Your task to perform on an android device: Add alienware area 51 to the cart on walmart.com Image 0: 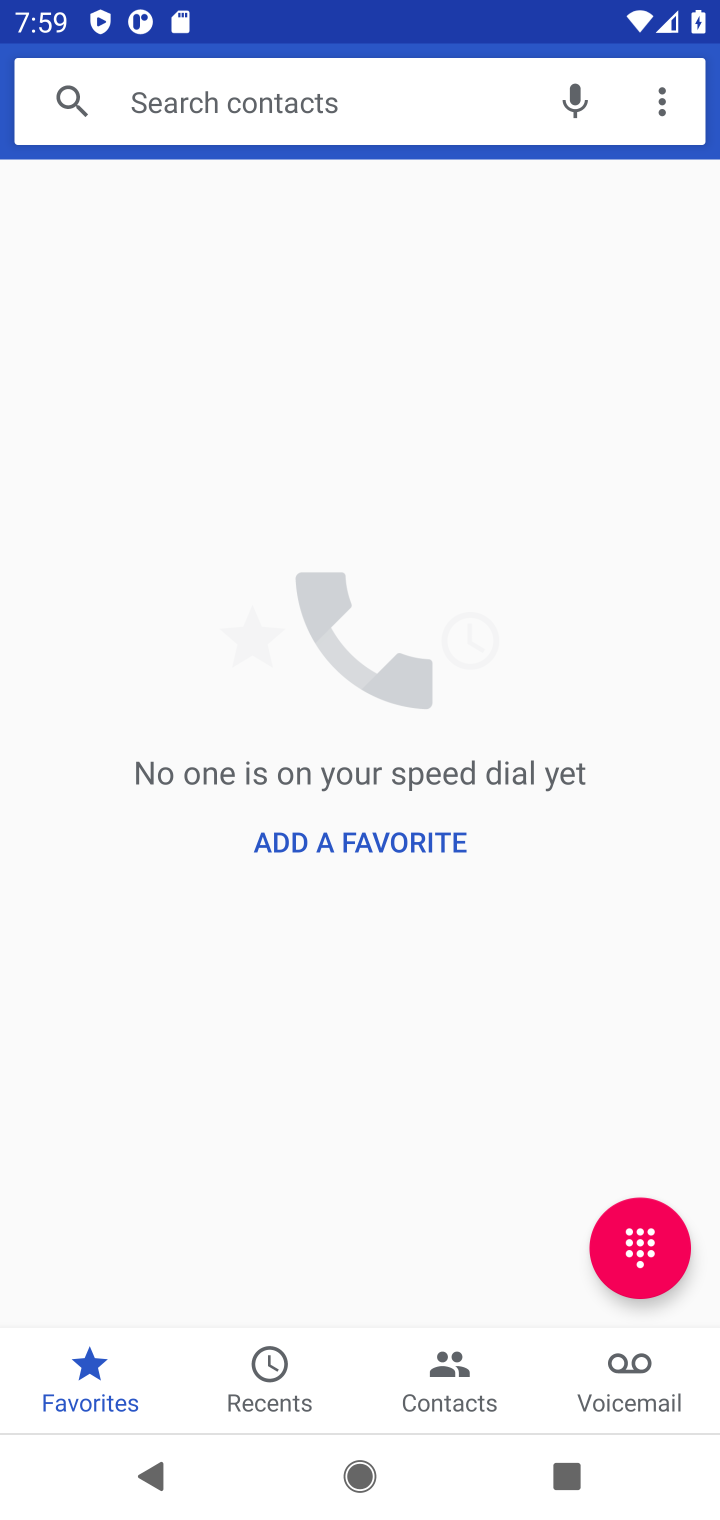
Step 0: press home button
Your task to perform on an android device: Add alienware area 51 to the cart on walmart.com Image 1: 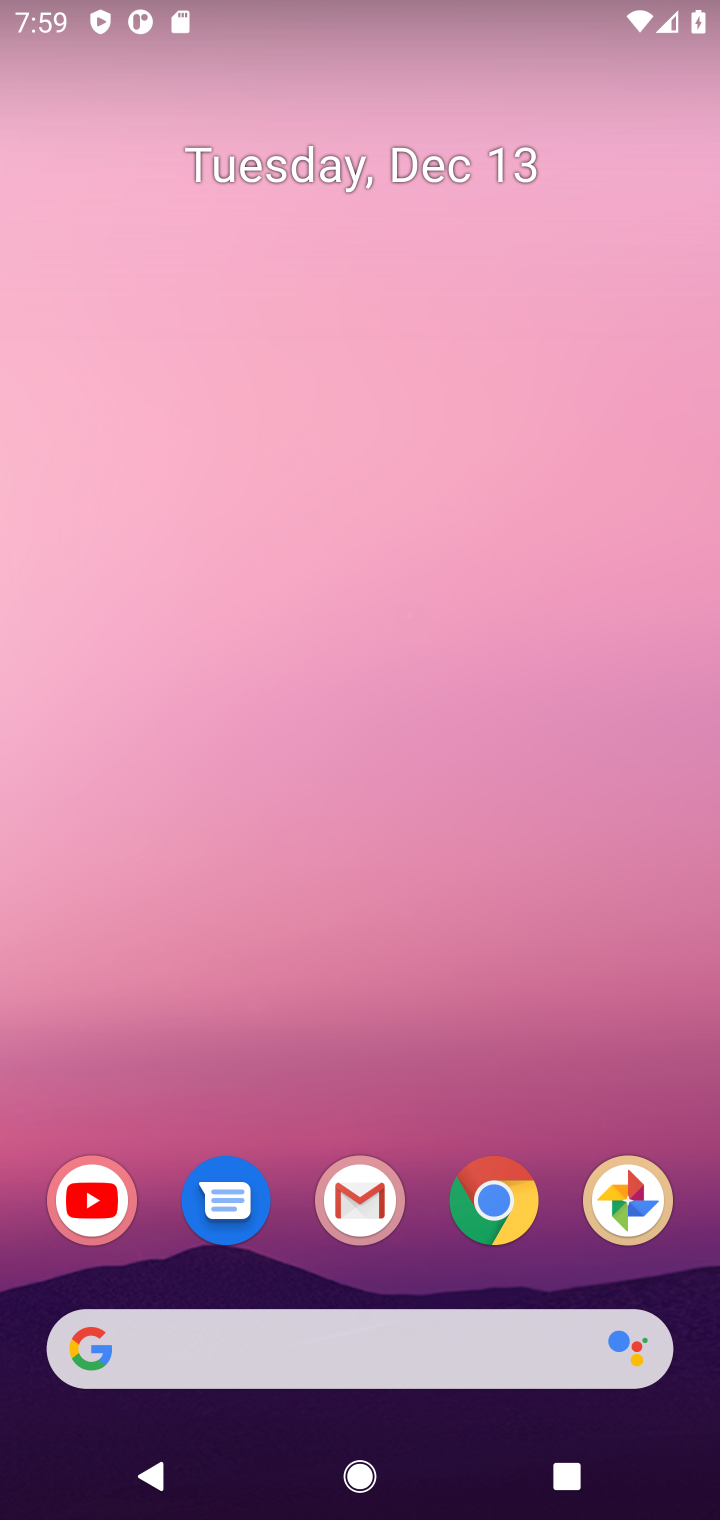
Step 1: click (384, 1355)
Your task to perform on an android device: Add alienware area 51 to the cart on walmart.com Image 2: 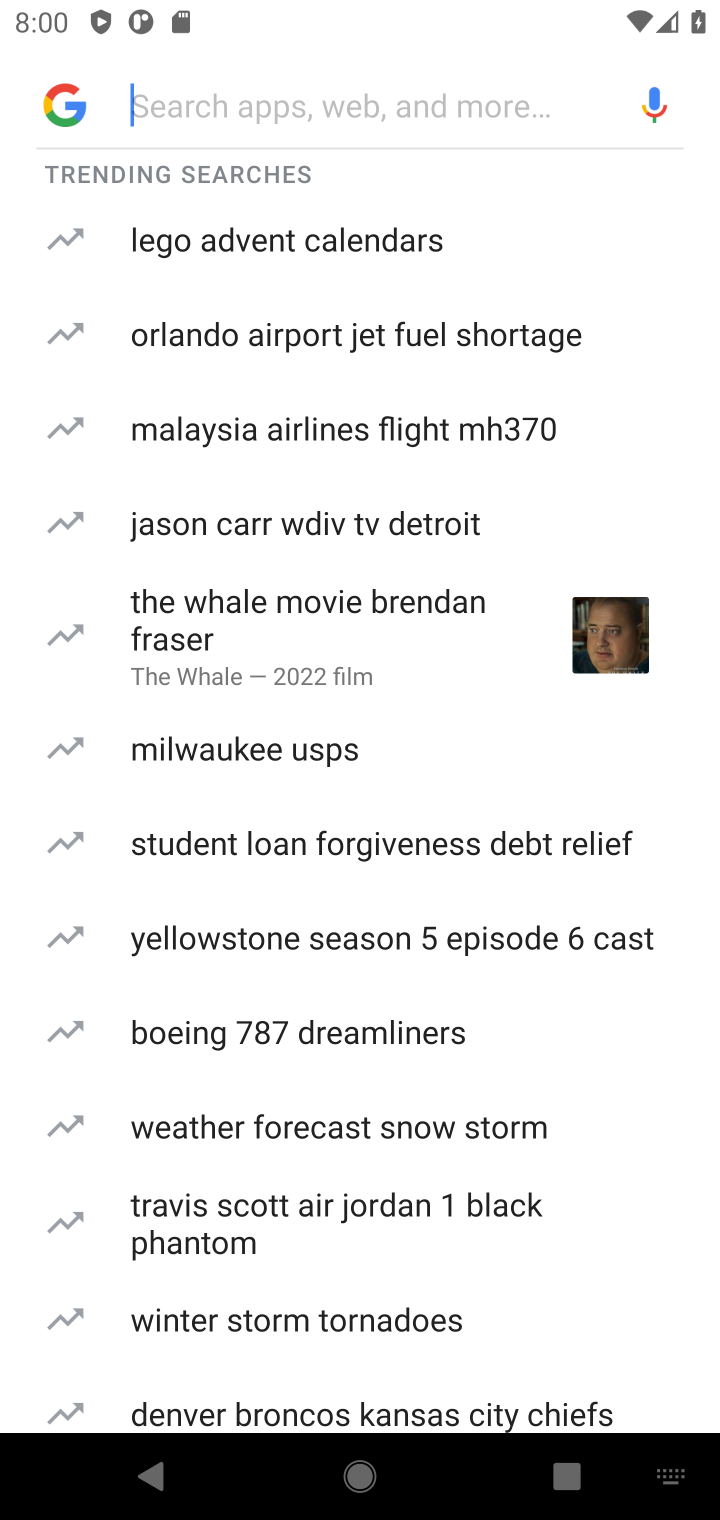
Step 2: type "walmart.com"
Your task to perform on an android device: Add alienware area 51 to the cart on walmart.com Image 3: 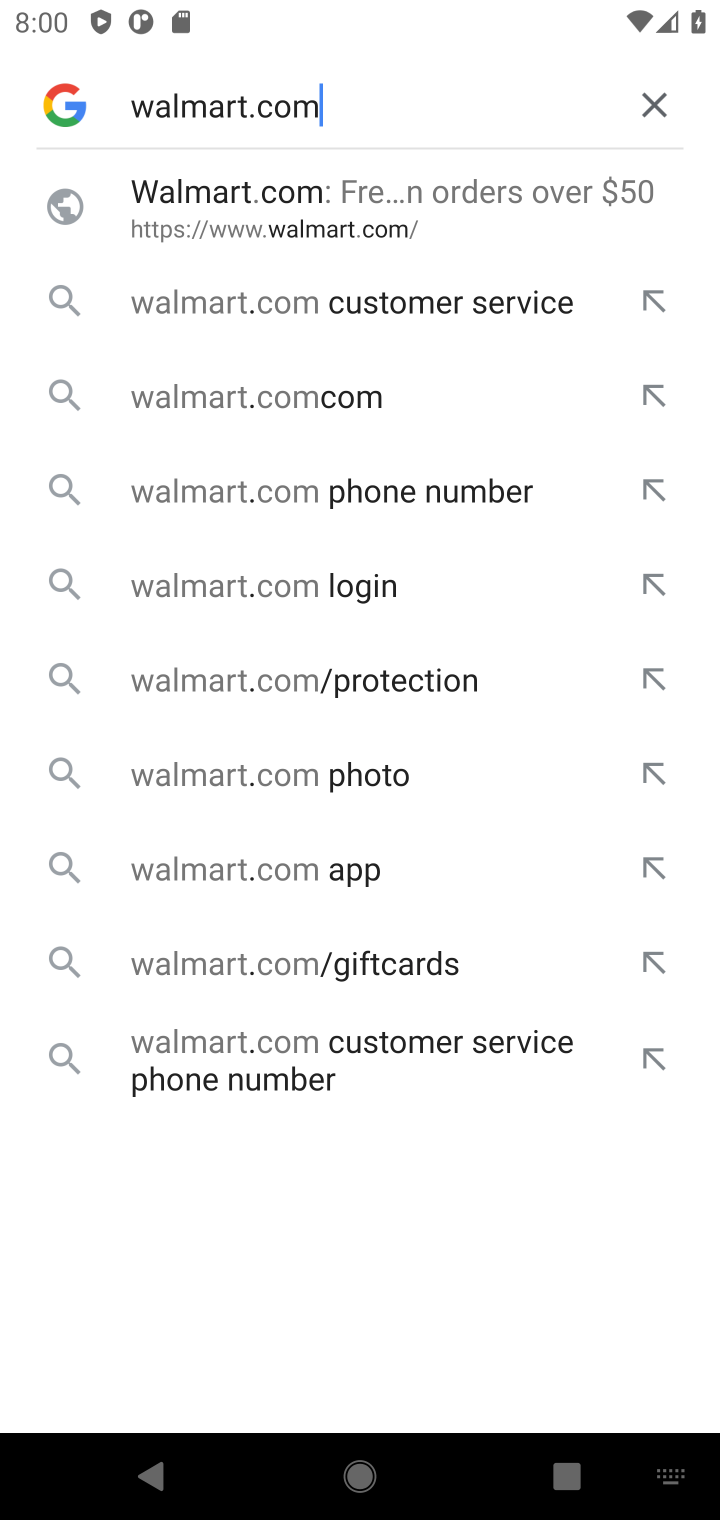
Step 3: click (339, 216)
Your task to perform on an android device: Add alienware area 51 to the cart on walmart.com Image 4: 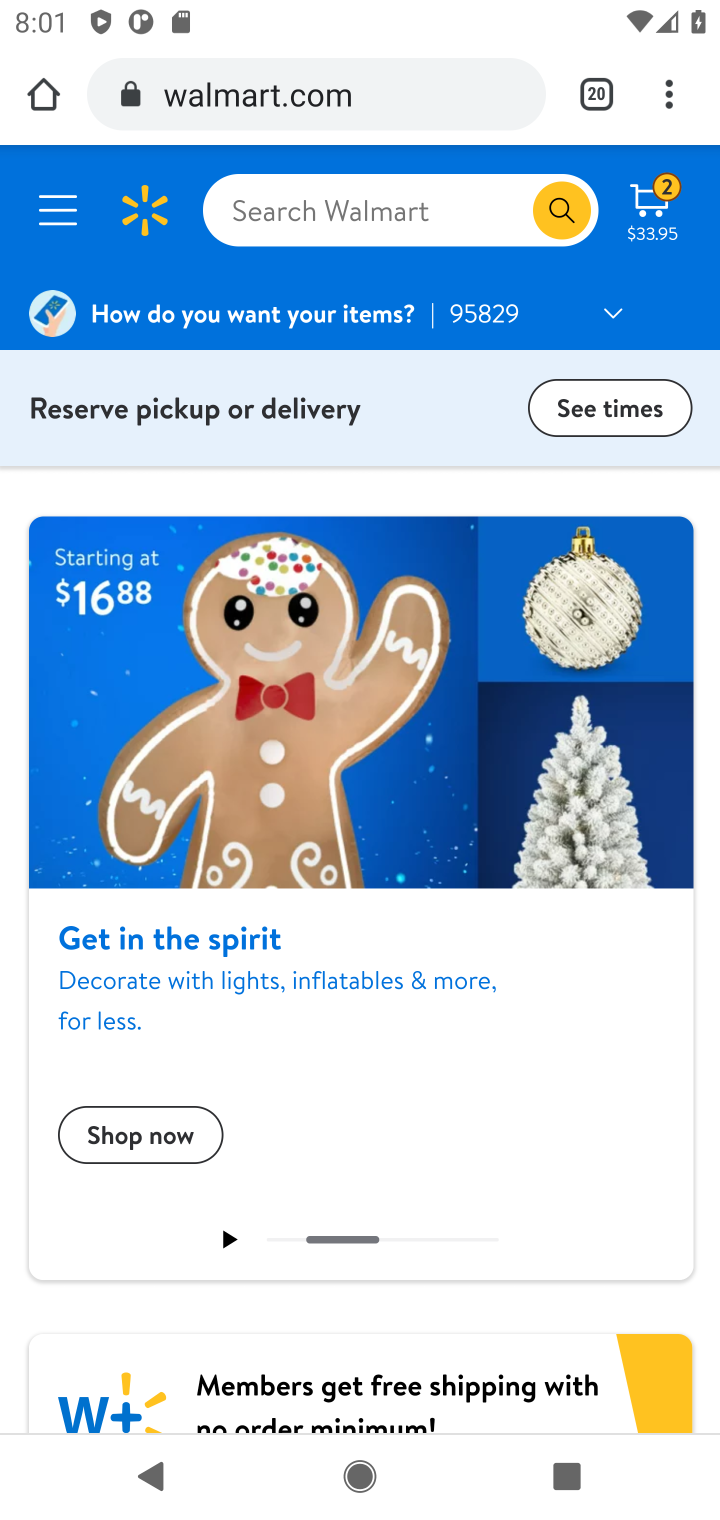
Step 4: click (383, 194)
Your task to perform on an android device: Add alienware area 51 to the cart on walmart.com Image 5: 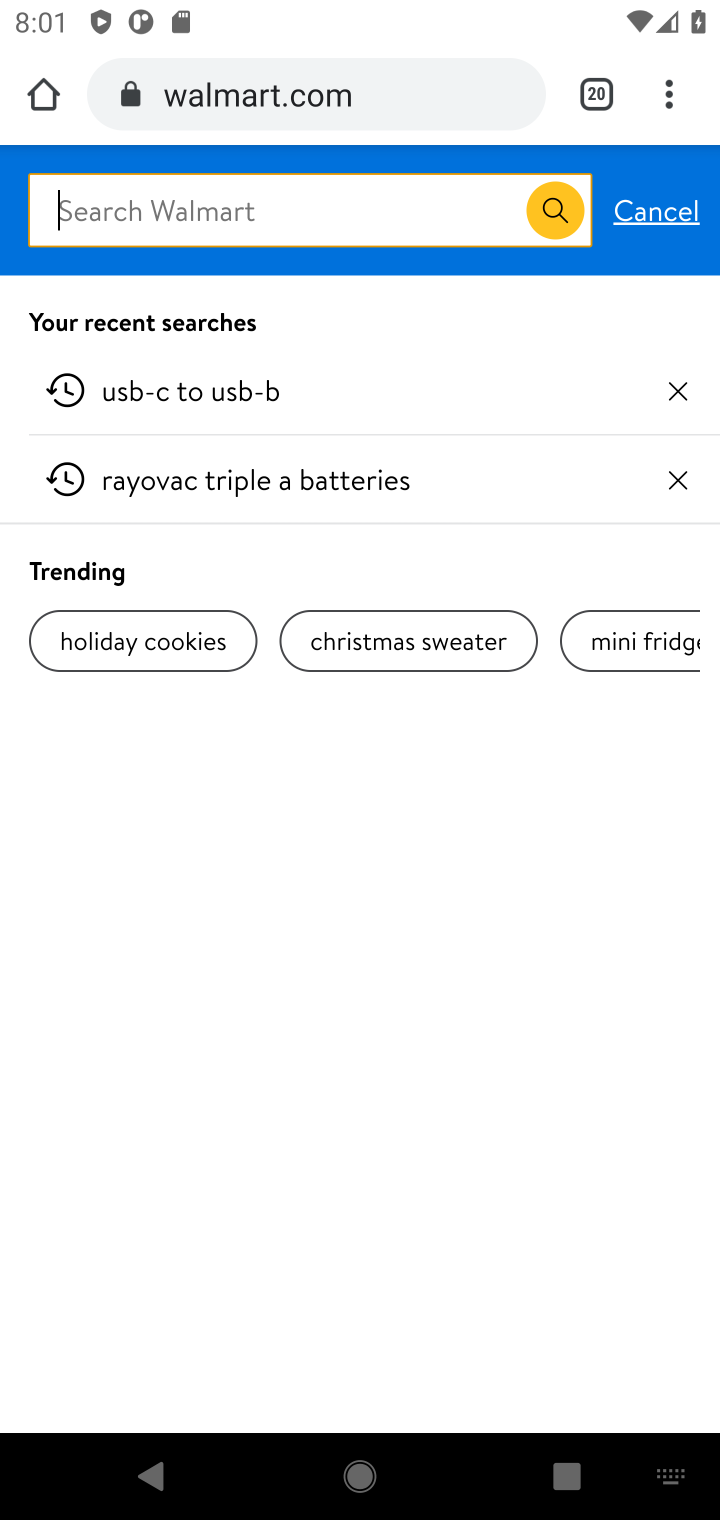
Step 5: type "alienware area 51 "
Your task to perform on an android device: Add alienware area 51 to the cart on walmart.com Image 6: 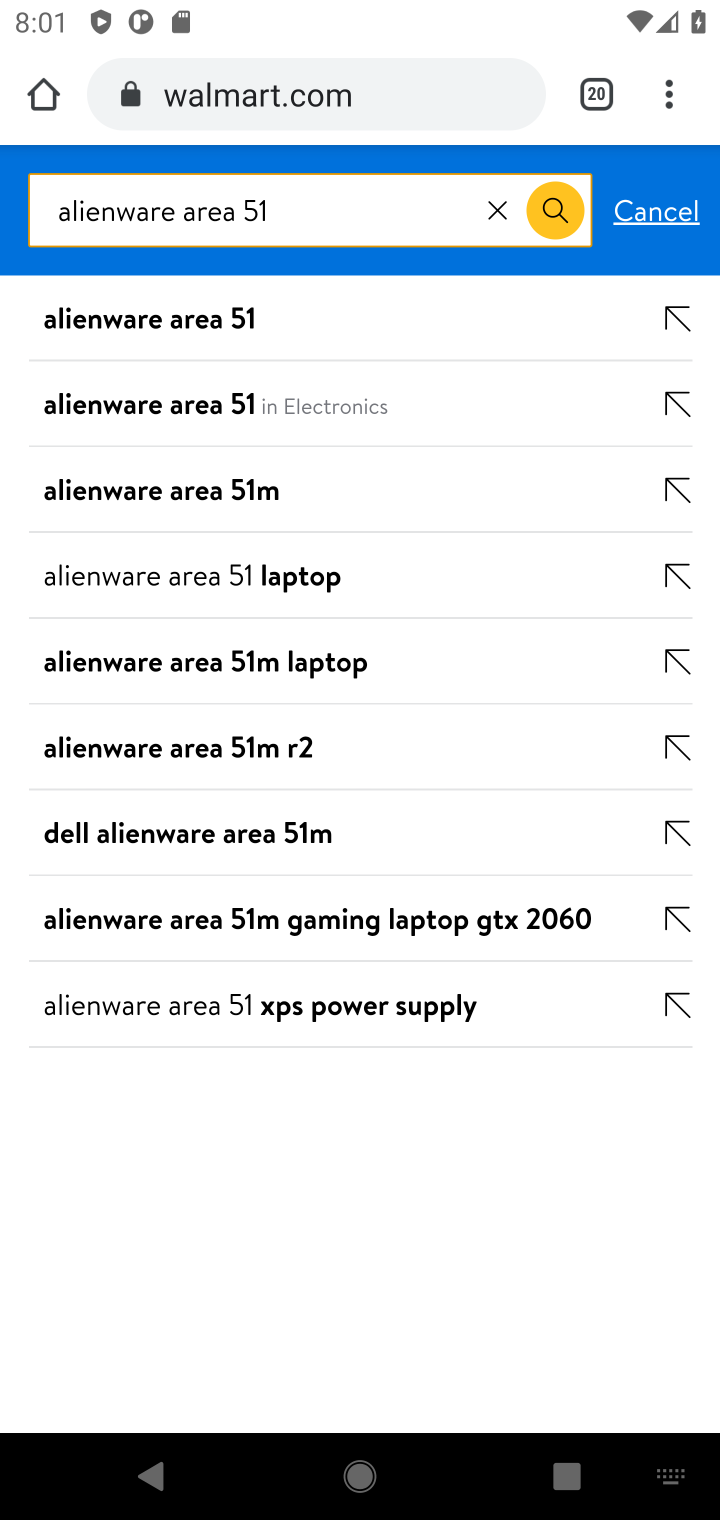
Step 6: click (169, 303)
Your task to perform on an android device: Add alienware area 51 to the cart on walmart.com Image 7: 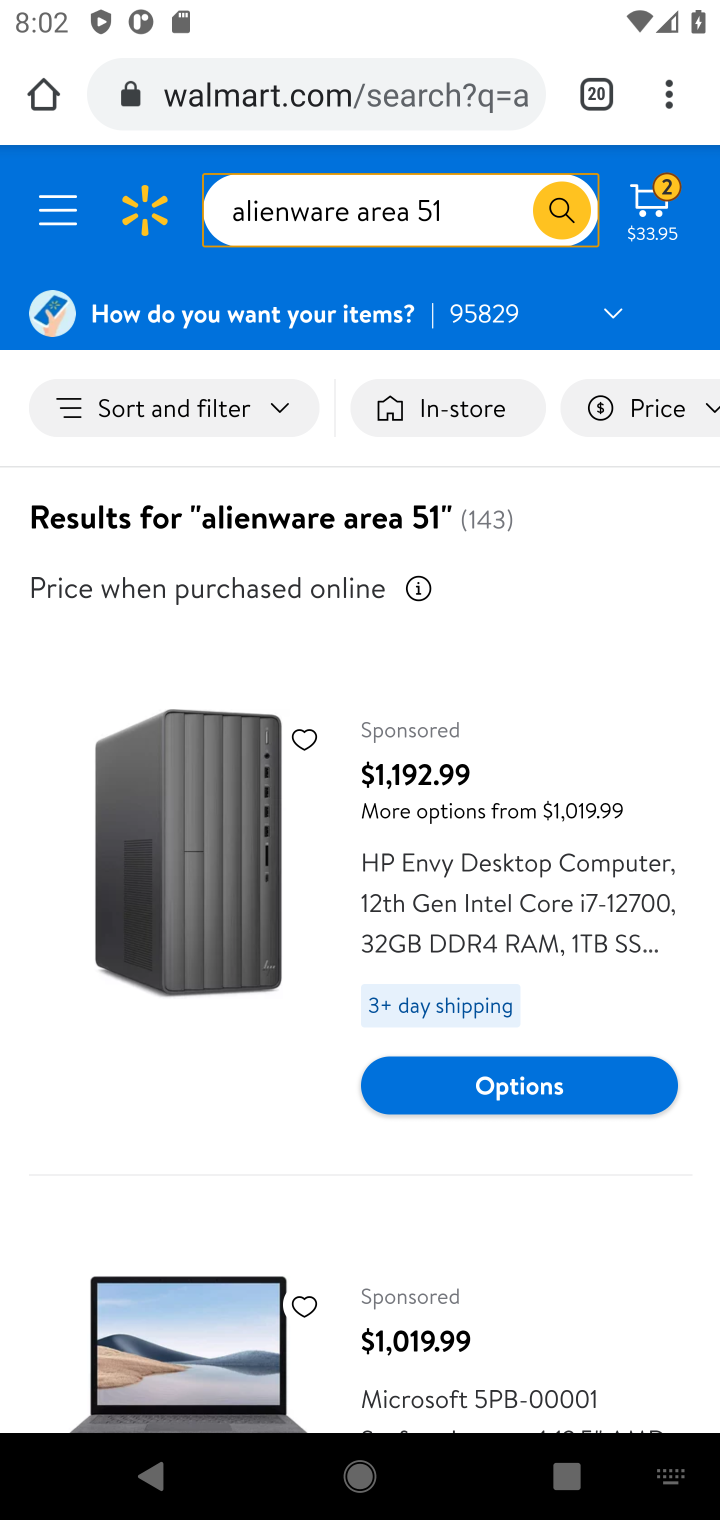
Step 7: click (534, 1083)
Your task to perform on an android device: Add alienware area 51 to the cart on walmart.com Image 8: 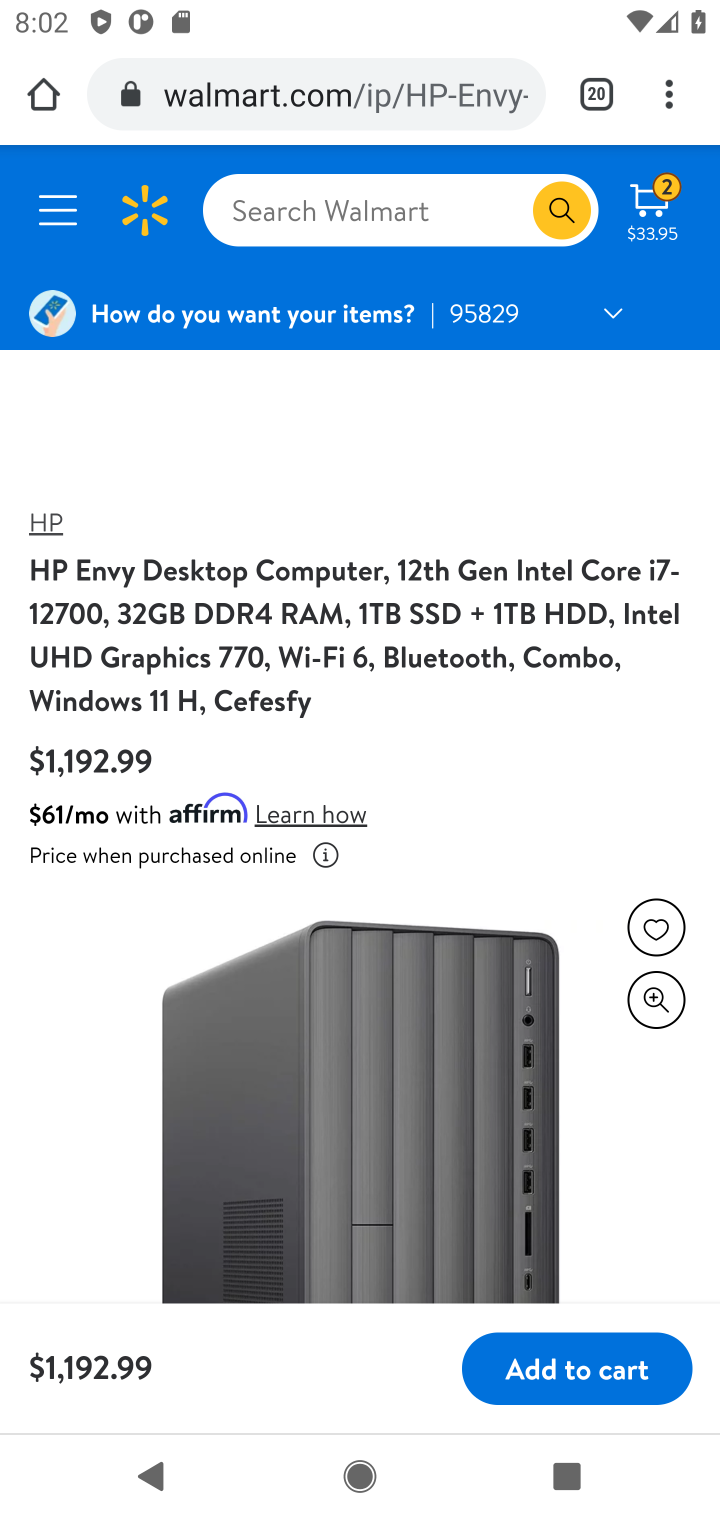
Step 8: click (583, 1387)
Your task to perform on an android device: Add alienware area 51 to the cart on walmart.com Image 9: 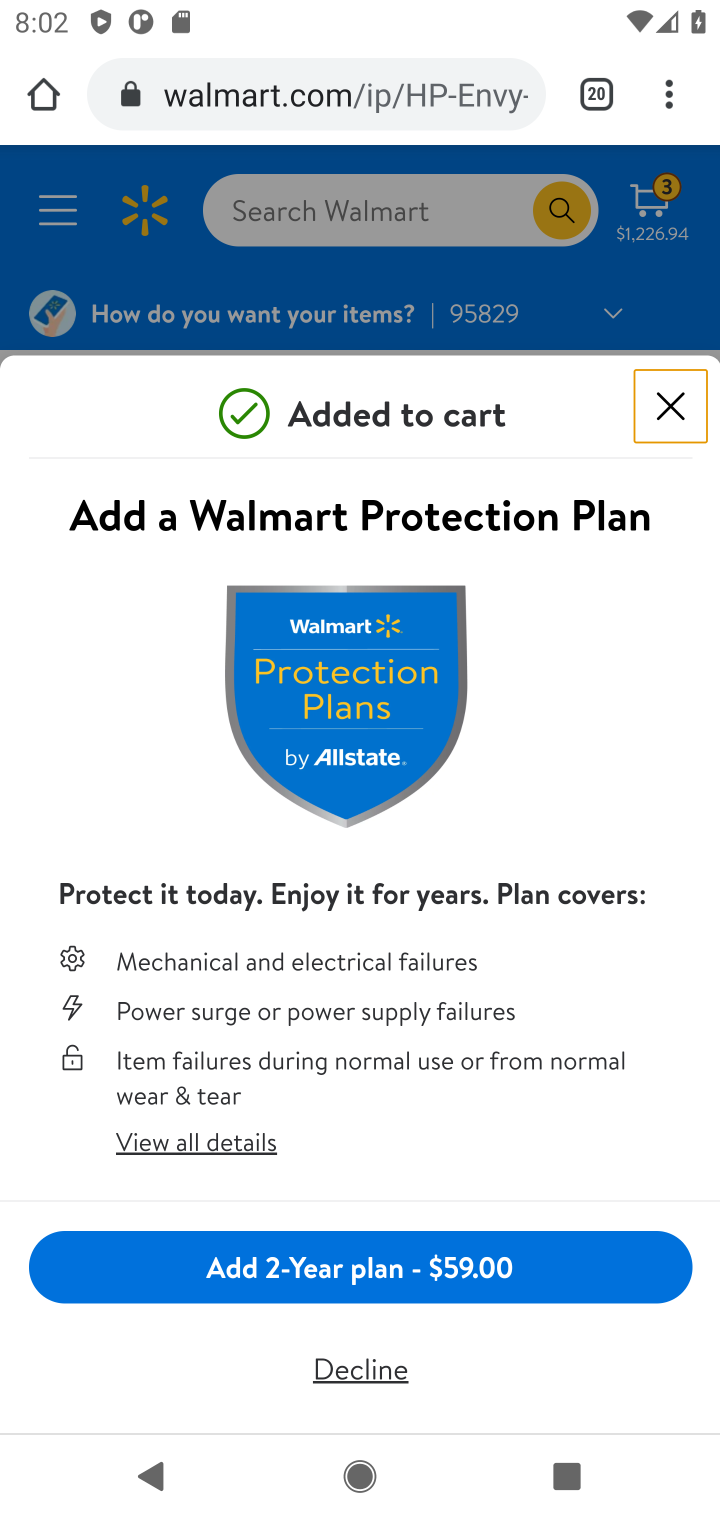
Step 9: click (351, 1376)
Your task to perform on an android device: Add alienware area 51 to the cart on walmart.com Image 10: 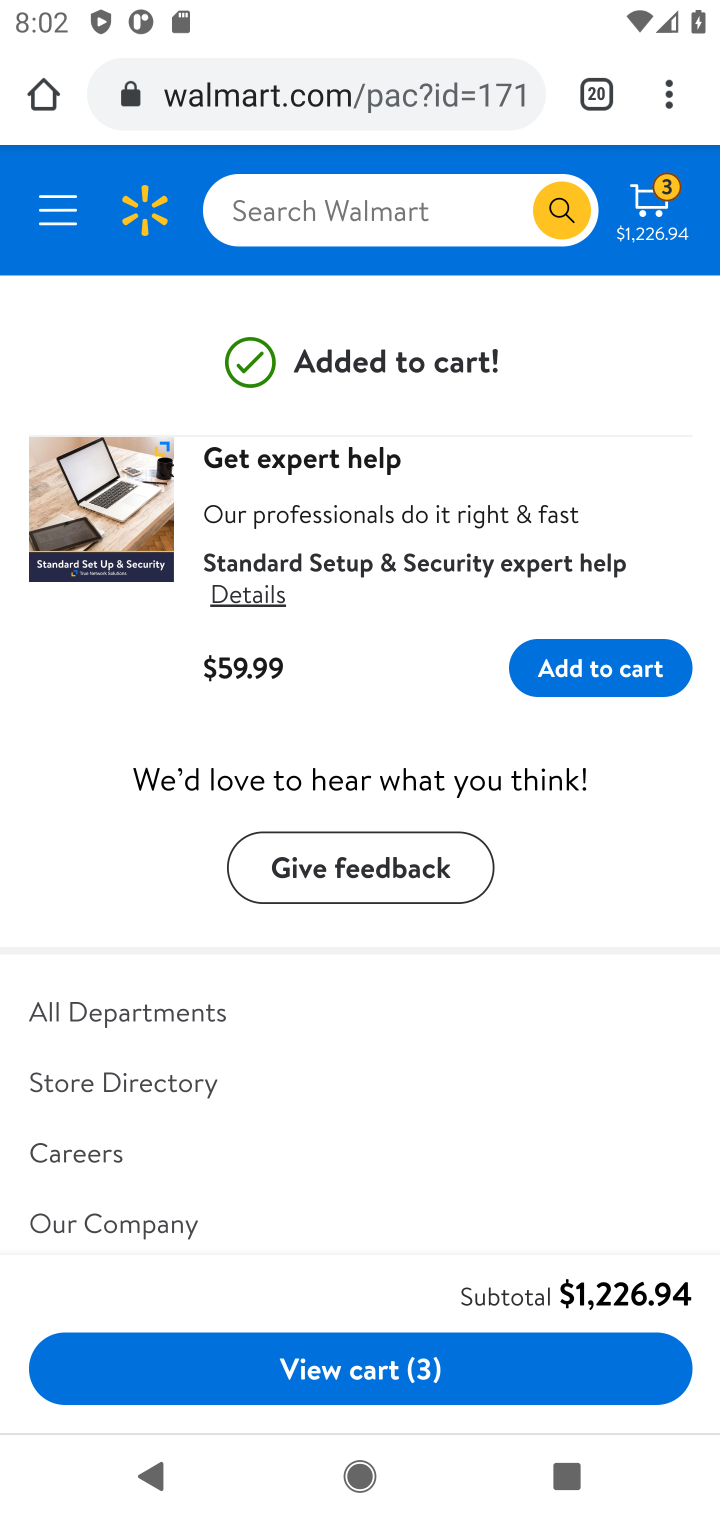
Step 10: task complete